Your task to perform on an android device: open app "HBO Max: Stream TV & Movies" Image 0: 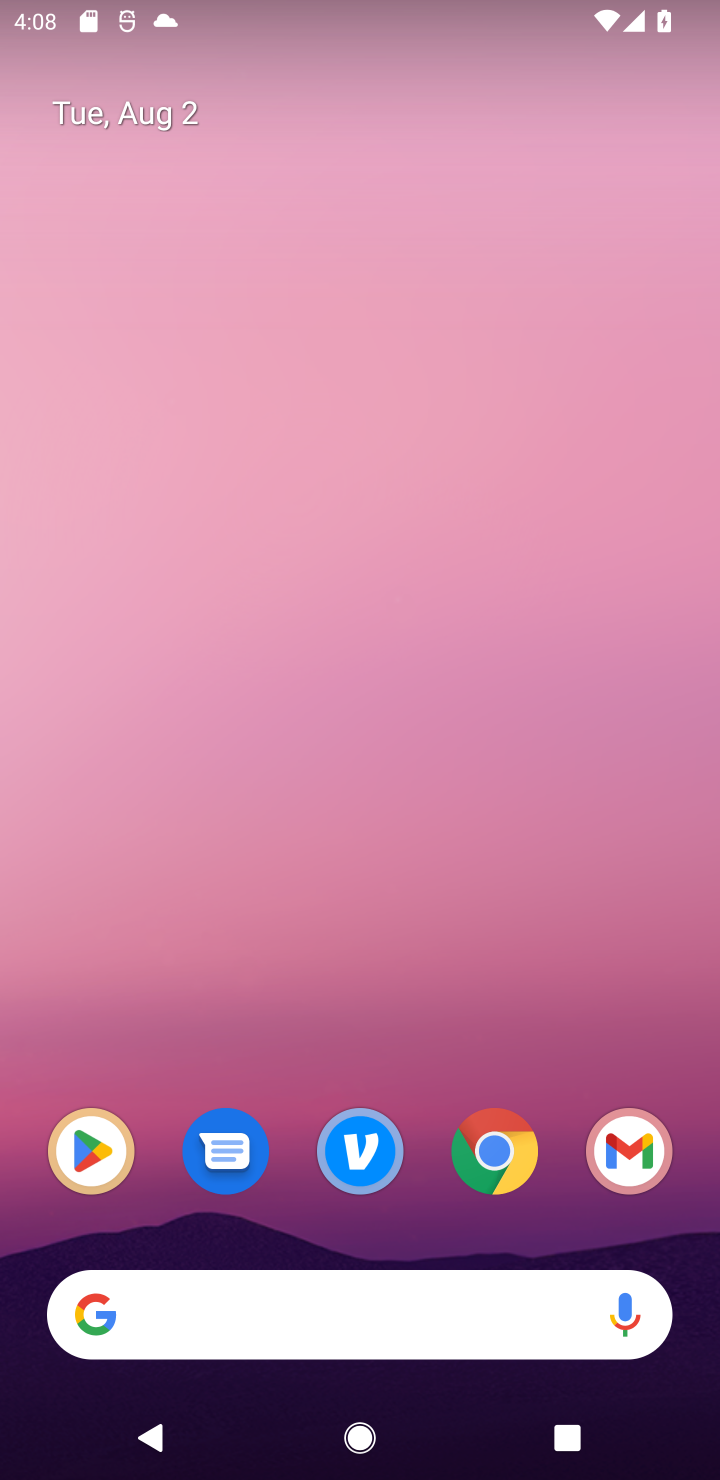
Step 0: drag from (201, 1351) to (397, 114)
Your task to perform on an android device: open app "HBO Max: Stream TV & Movies" Image 1: 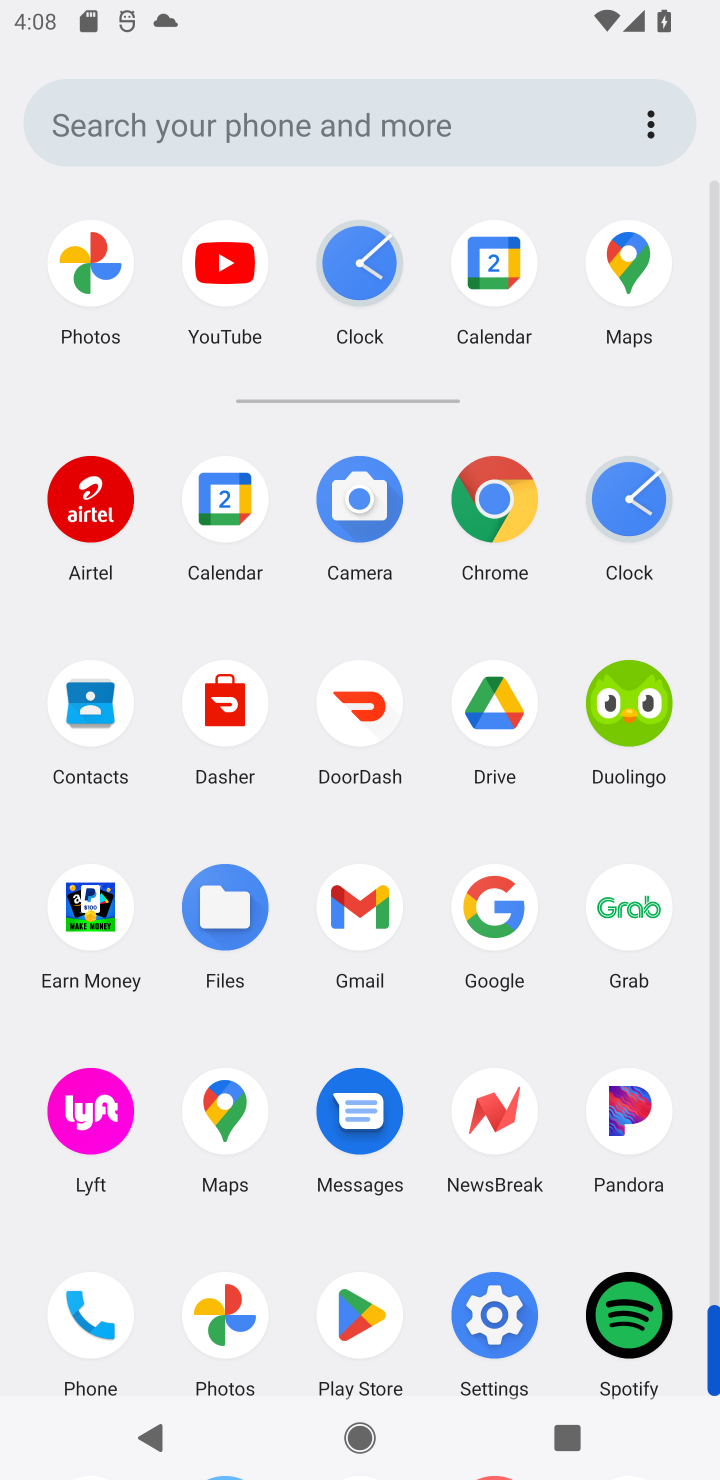
Step 1: drag from (527, 1040) to (618, 477)
Your task to perform on an android device: open app "HBO Max: Stream TV & Movies" Image 2: 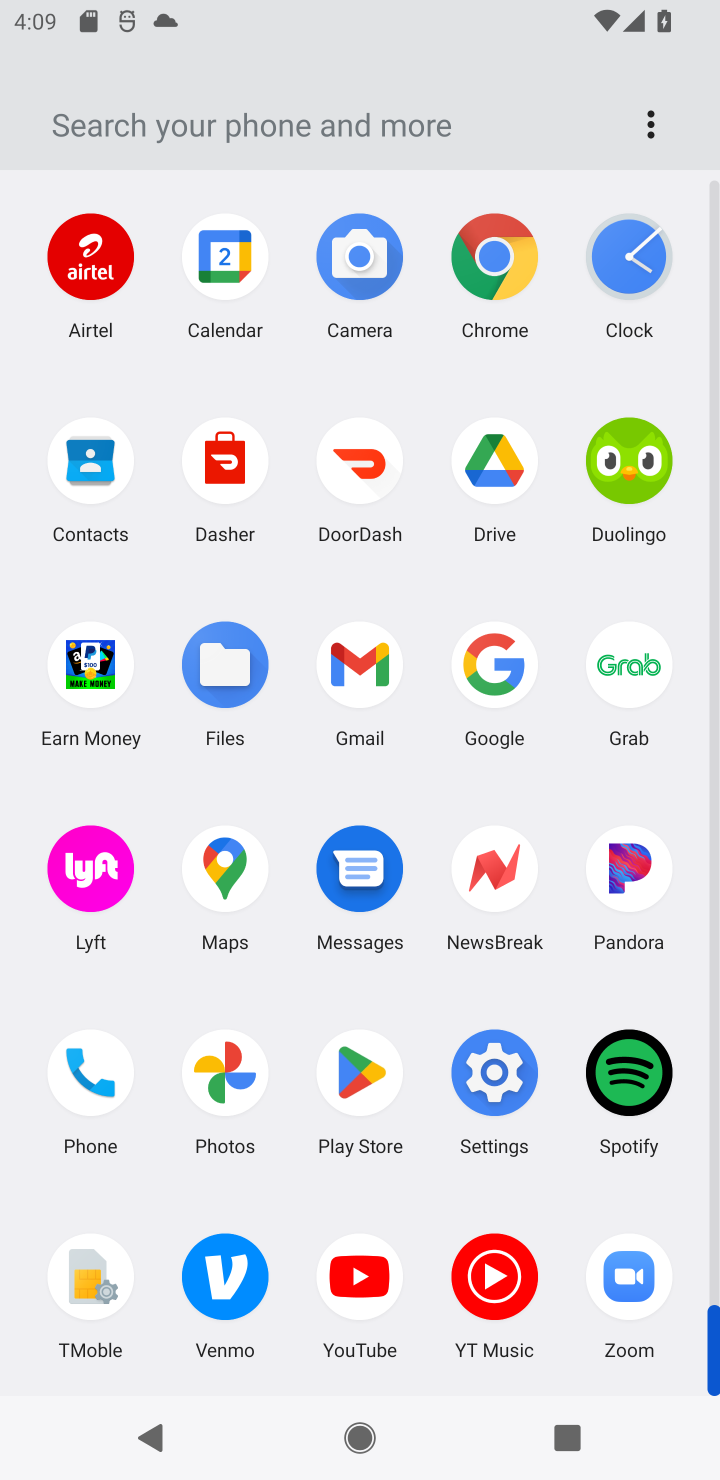
Step 2: click (372, 1109)
Your task to perform on an android device: open app "HBO Max: Stream TV & Movies" Image 3: 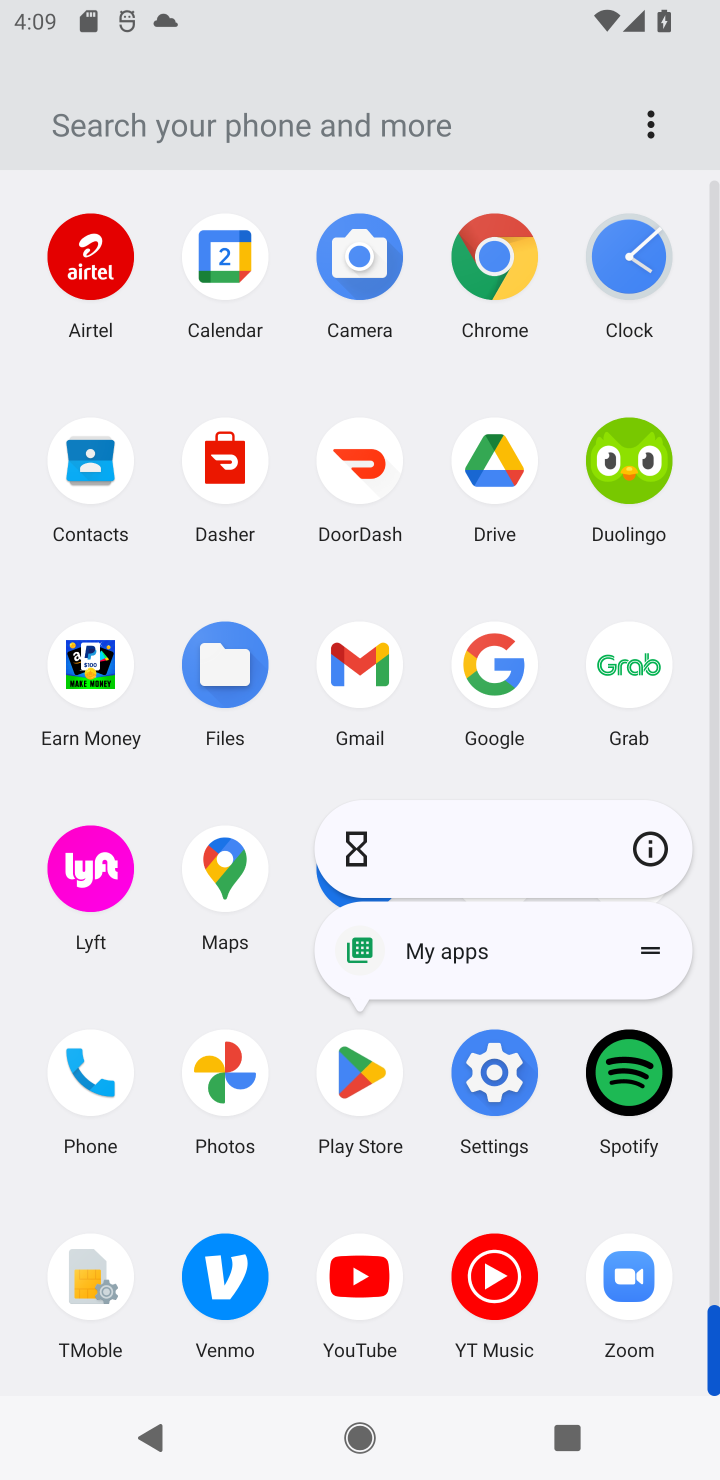
Step 3: click (387, 1114)
Your task to perform on an android device: open app "HBO Max: Stream TV & Movies" Image 4: 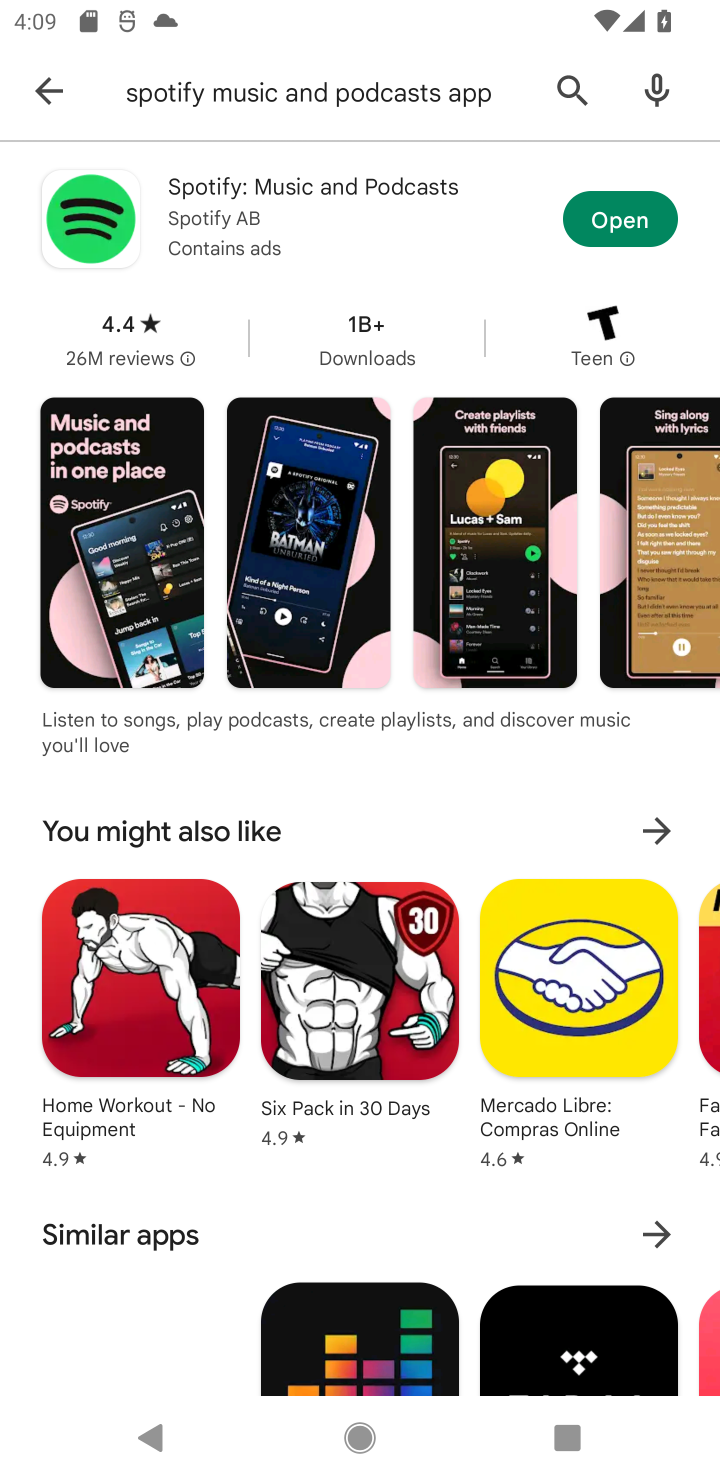
Step 4: click (31, 86)
Your task to perform on an android device: open app "HBO Max: Stream TV & Movies" Image 5: 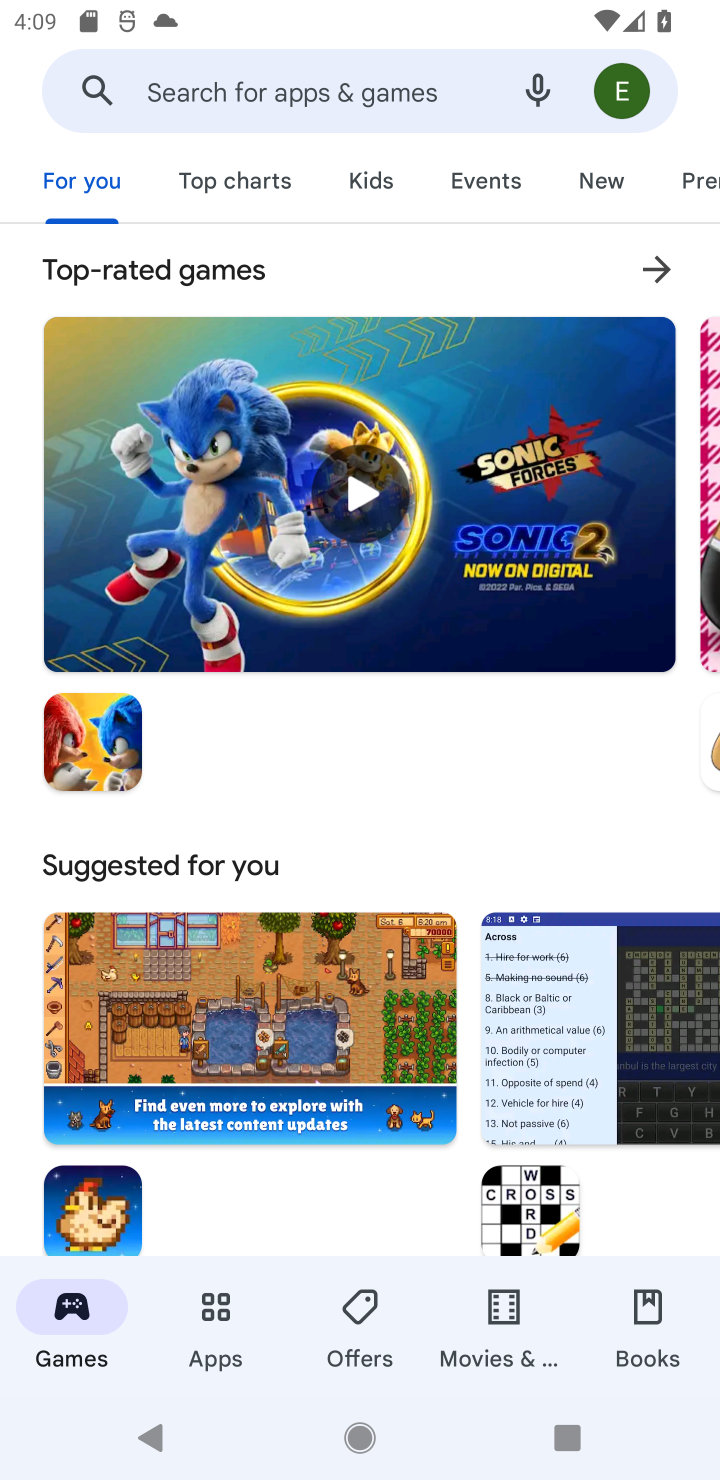
Step 5: click (205, 92)
Your task to perform on an android device: open app "HBO Max: Stream TV & Movies" Image 6: 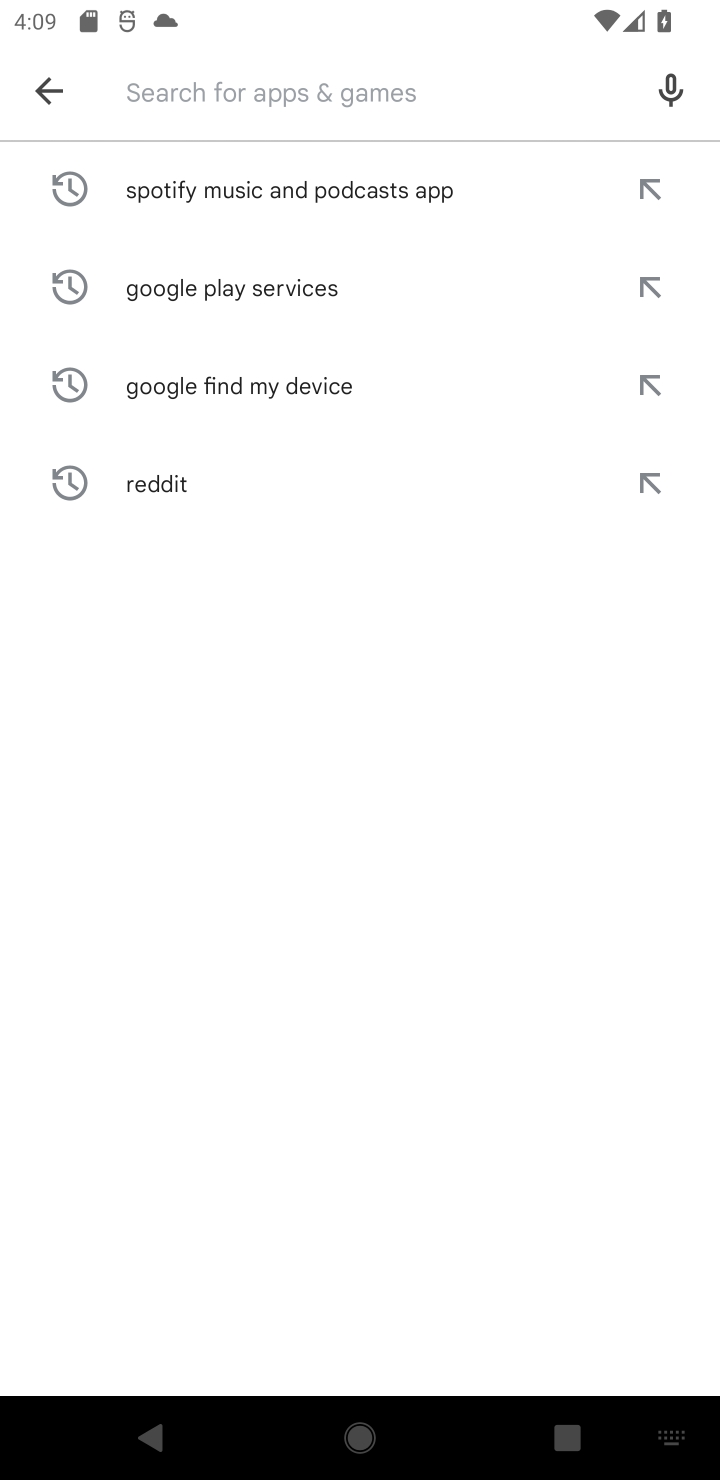
Step 6: type "HBO Max: Stream TV & Movies"
Your task to perform on an android device: open app "HBO Max: Stream TV & Movies" Image 7: 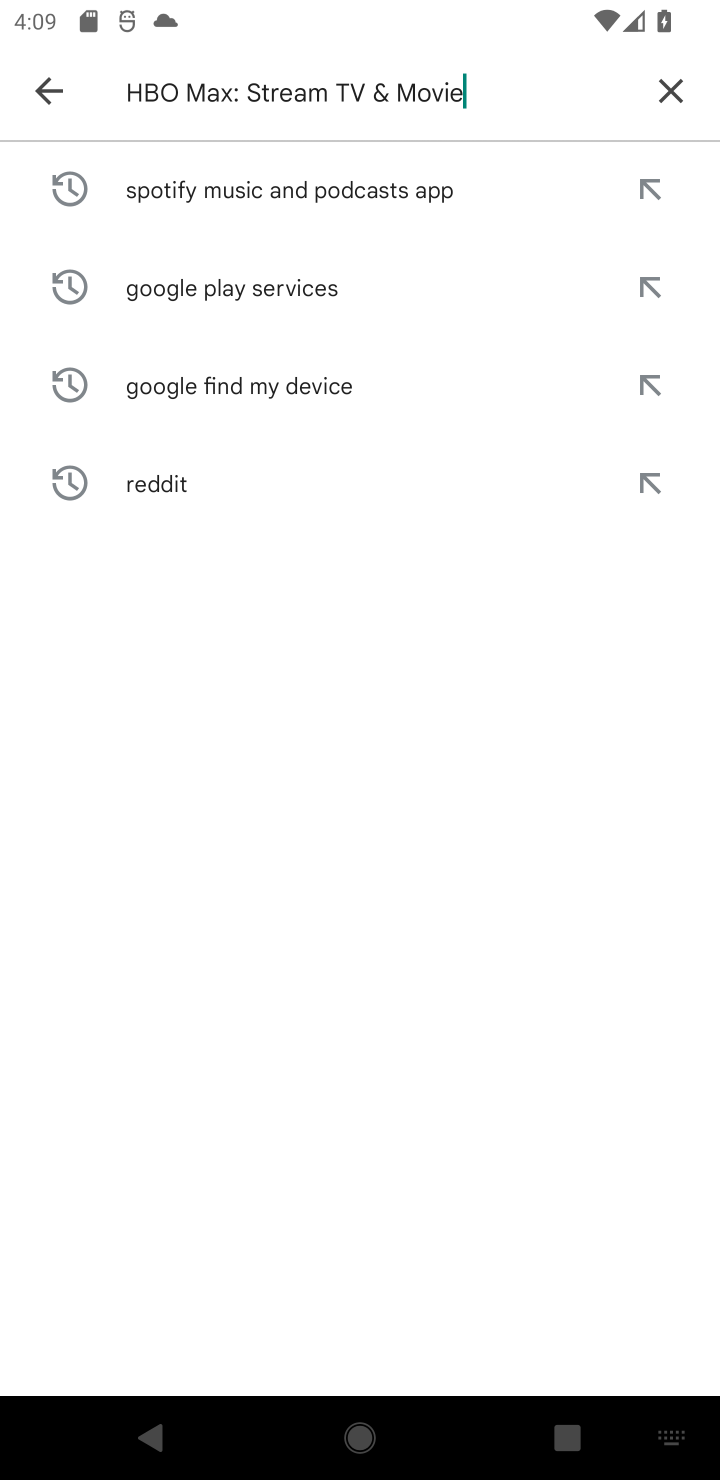
Step 7: type ""
Your task to perform on an android device: open app "HBO Max: Stream TV & Movies" Image 8: 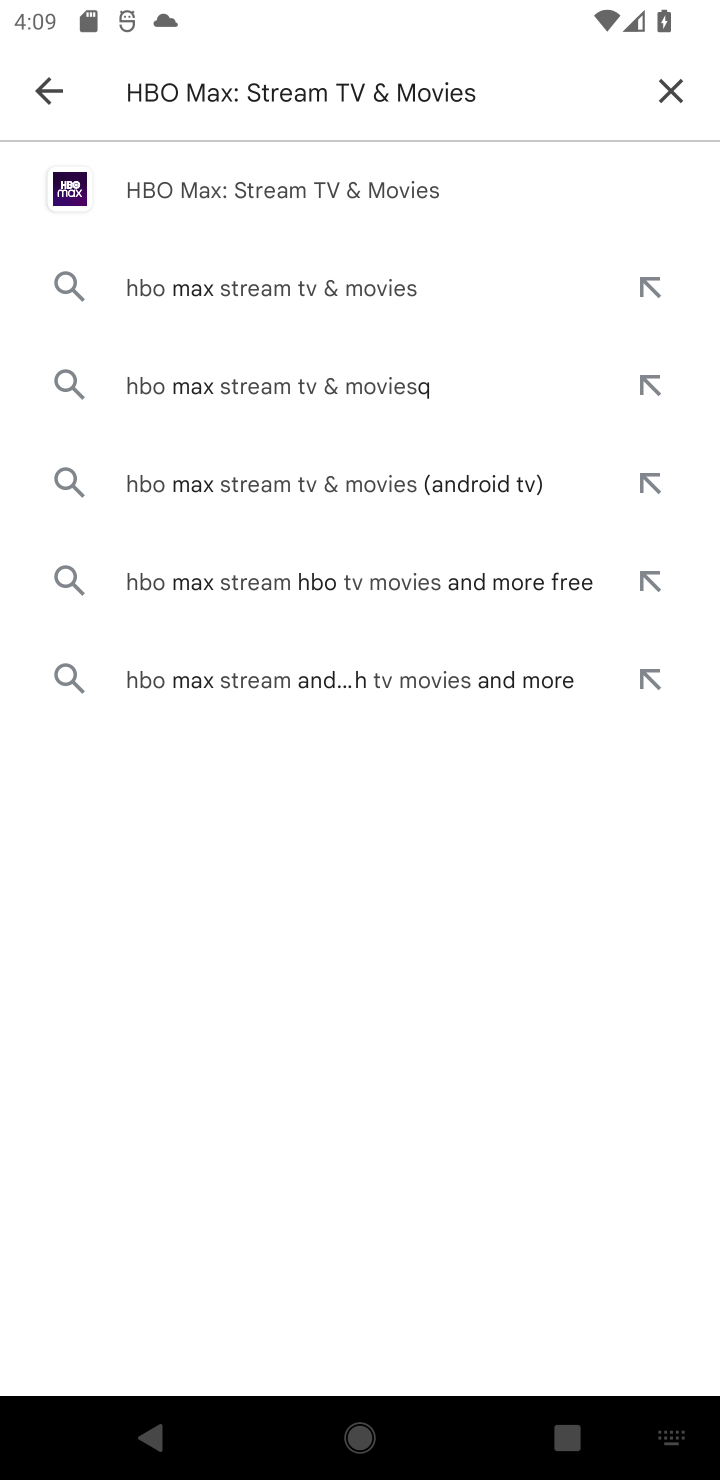
Step 8: click (422, 175)
Your task to perform on an android device: open app "HBO Max: Stream TV & Movies" Image 9: 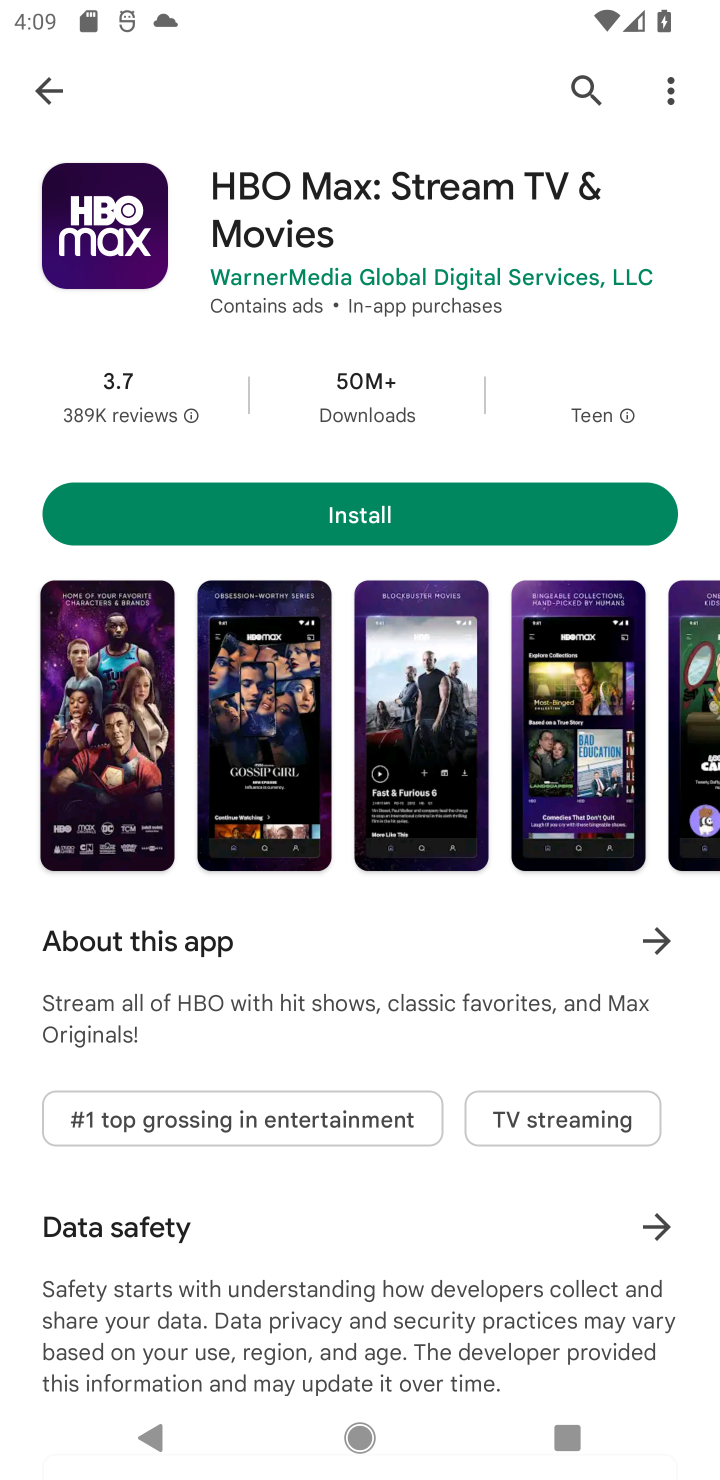
Step 9: click (344, 512)
Your task to perform on an android device: open app "HBO Max: Stream TV & Movies" Image 10: 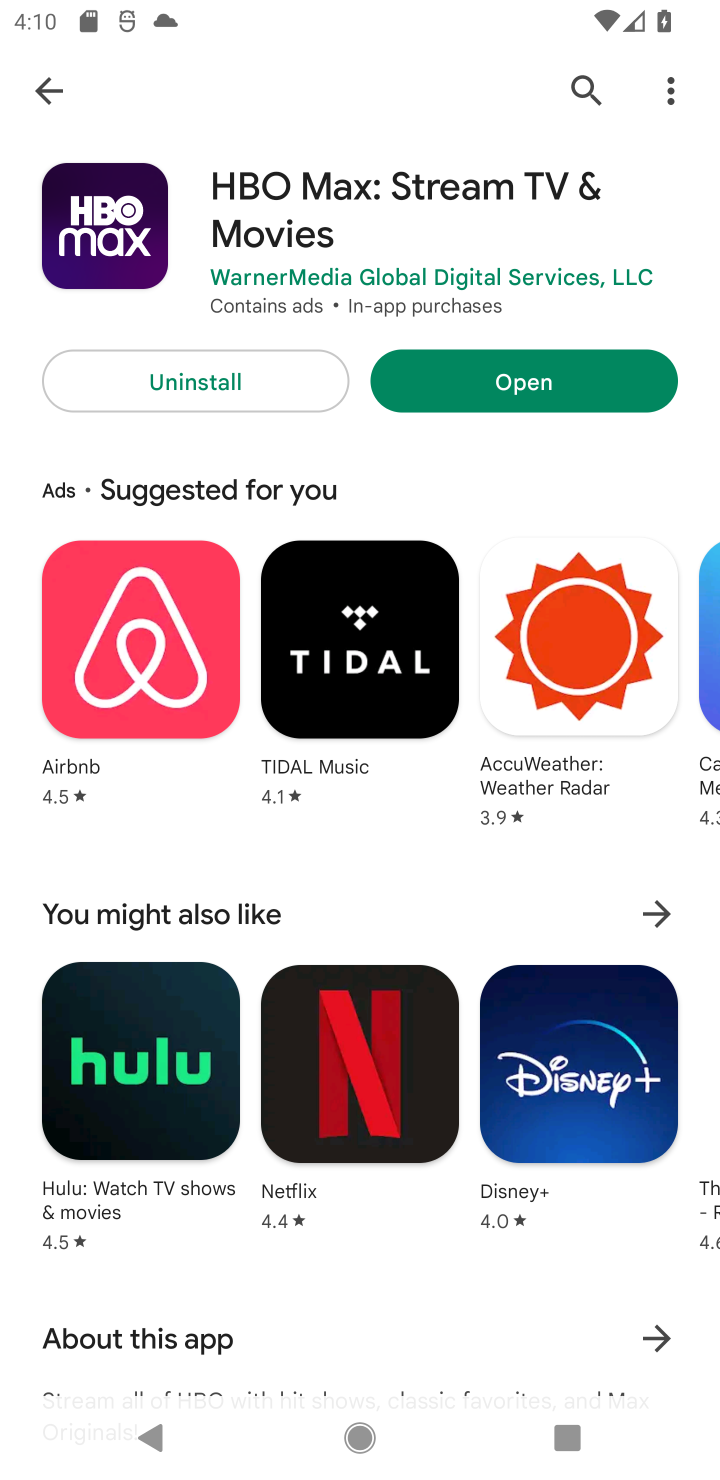
Step 10: task complete